Your task to perform on an android device: check battery use Image 0: 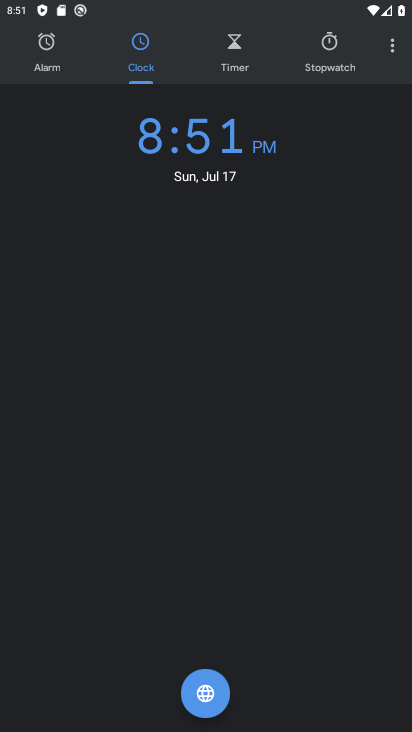
Step 0: press home button
Your task to perform on an android device: check battery use Image 1: 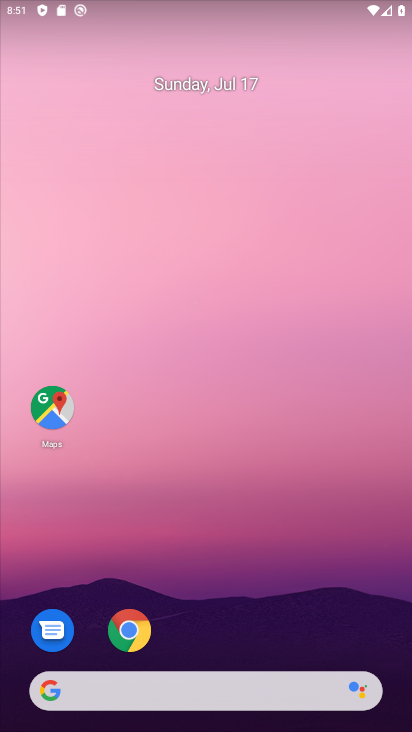
Step 1: drag from (203, 660) to (237, 59)
Your task to perform on an android device: check battery use Image 2: 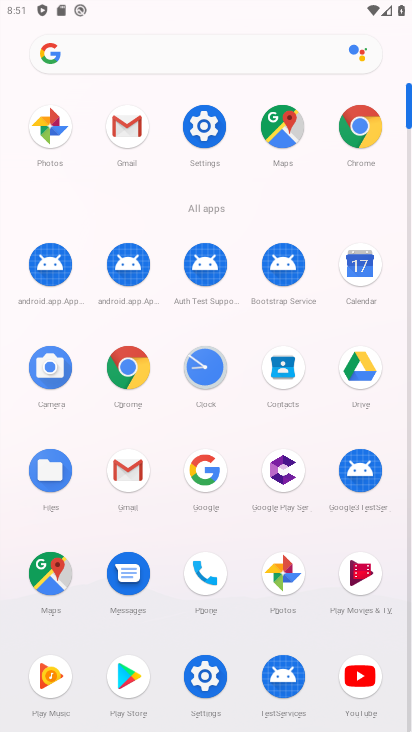
Step 2: click (203, 665)
Your task to perform on an android device: check battery use Image 3: 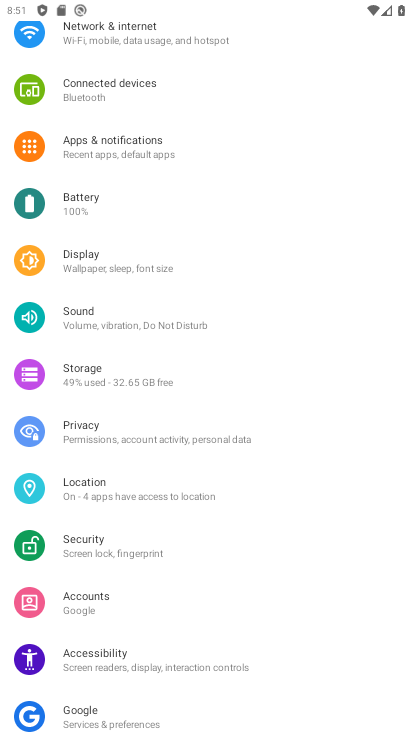
Step 3: drag from (106, 686) to (142, 558)
Your task to perform on an android device: check battery use Image 4: 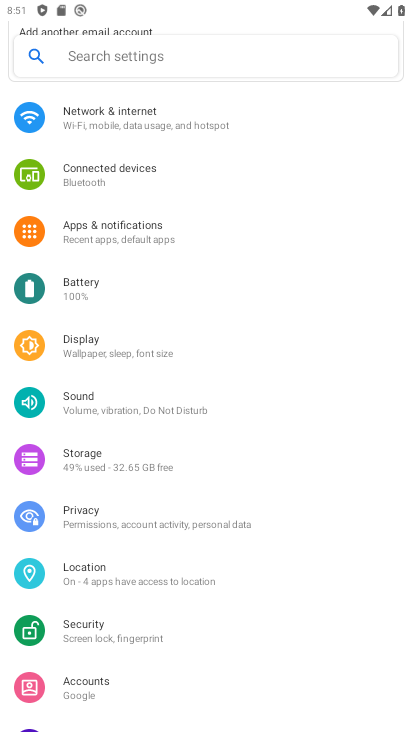
Step 4: click (112, 288)
Your task to perform on an android device: check battery use Image 5: 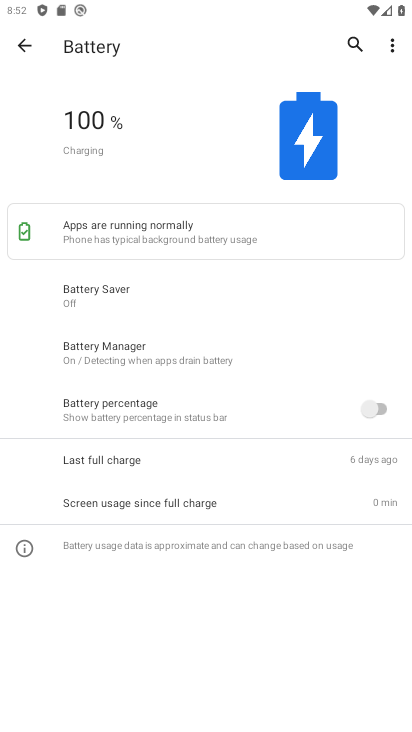
Step 5: click (392, 42)
Your task to perform on an android device: check battery use Image 6: 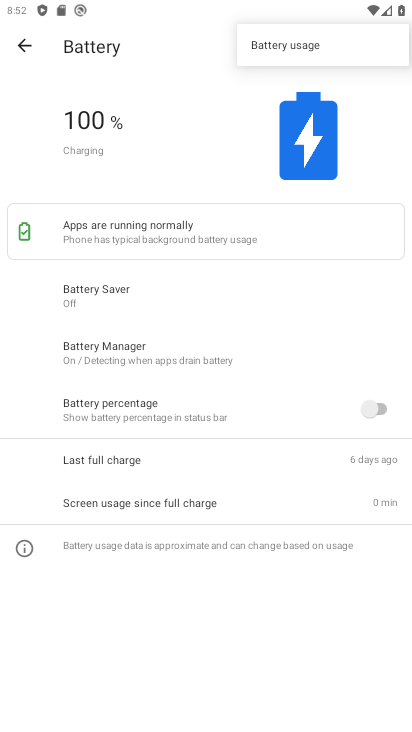
Step 6: click (392, 42)
Your task to perform on an android device: check battery use Image 7: 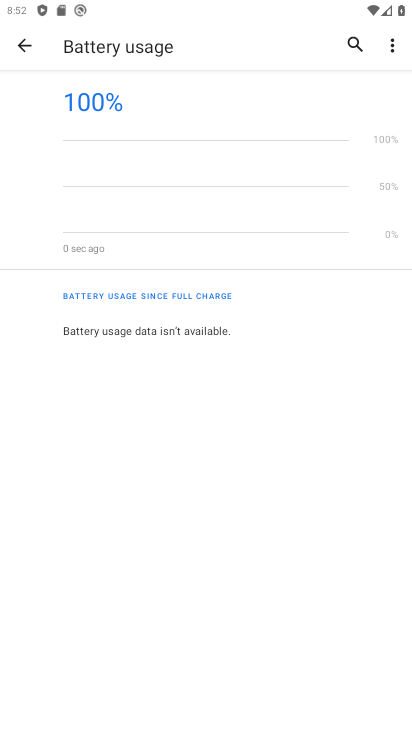
Step 7: task complete